Your task to perform on an android device: Add logitech g933 to the cart on walmart Image 0: 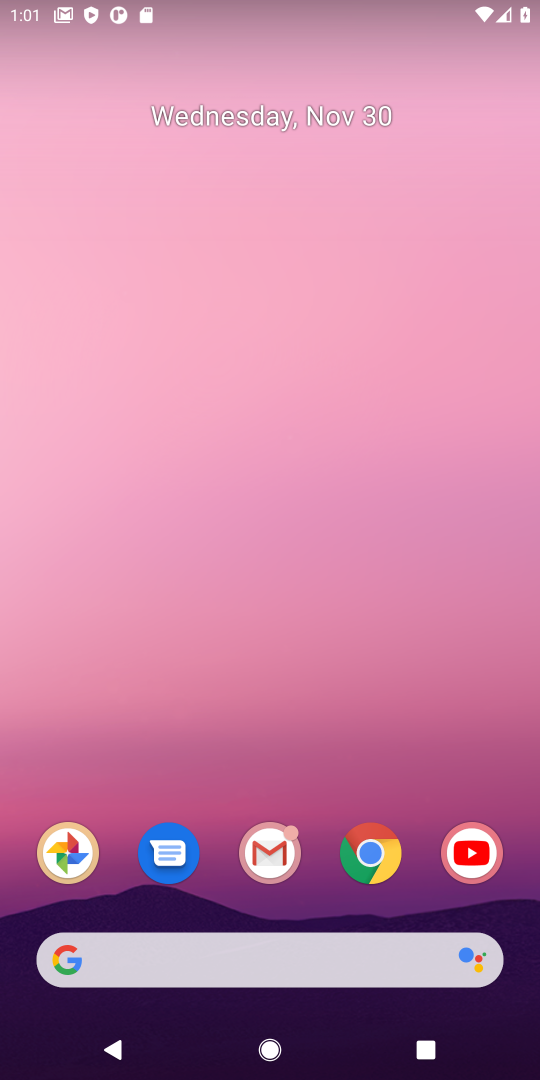
Step 0: click (390, 836)
Your task to perform on an android device: Add logitech g933 to the cart on walmart Image 1: 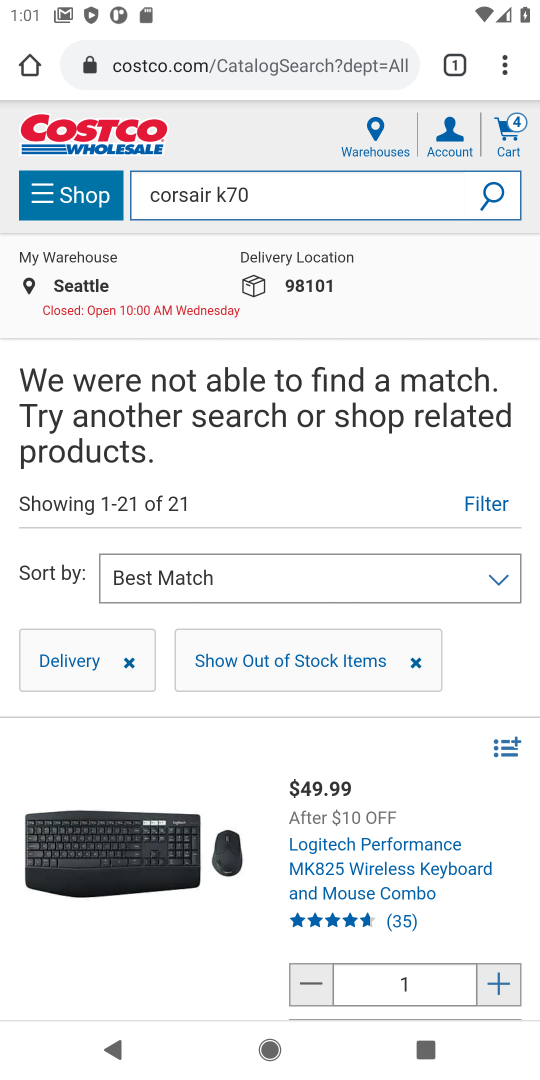
Step 1: click (216, 60)
Your task to perform on an android device: Add logitech g933 to the cart on walmart Image 2: 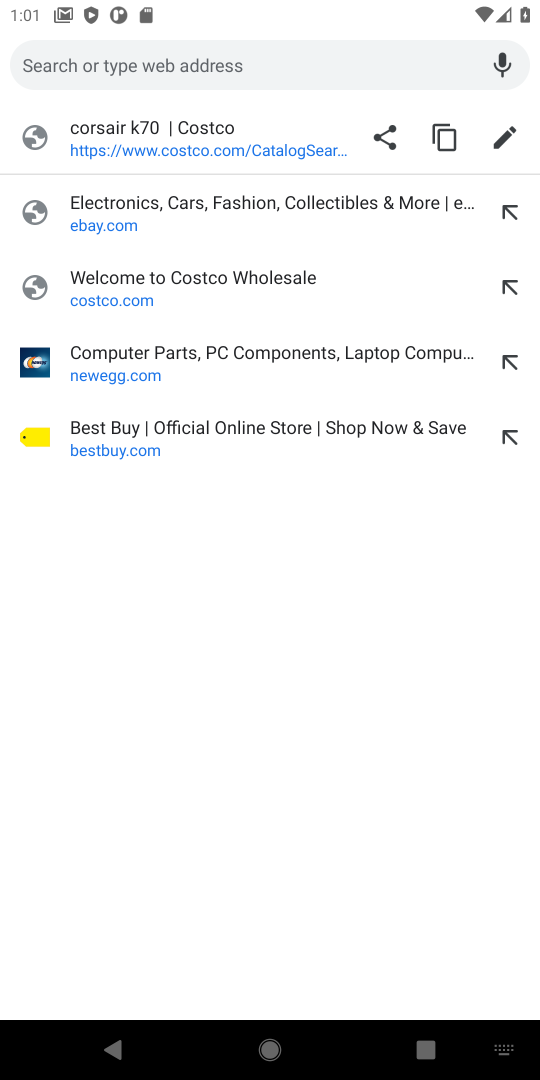
Step 2: type "walmart.com"
Your task to perform on an android device: Add logitech g933 to the cart on walmart Image 3: 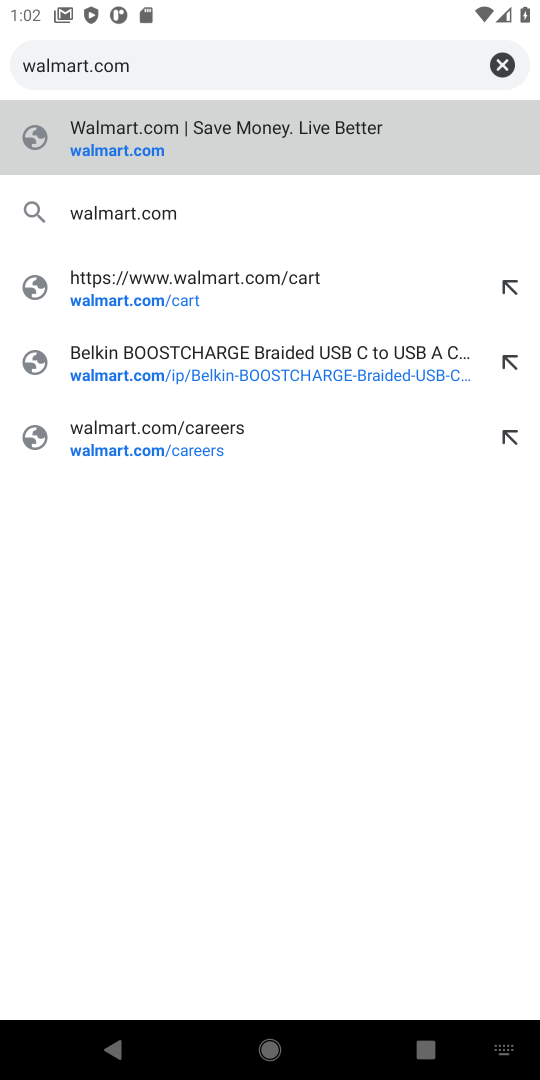
Step 3: click (115, 150)
Your task to perform on an android device: Add logitech g933 to the cart on walmart Image 4: 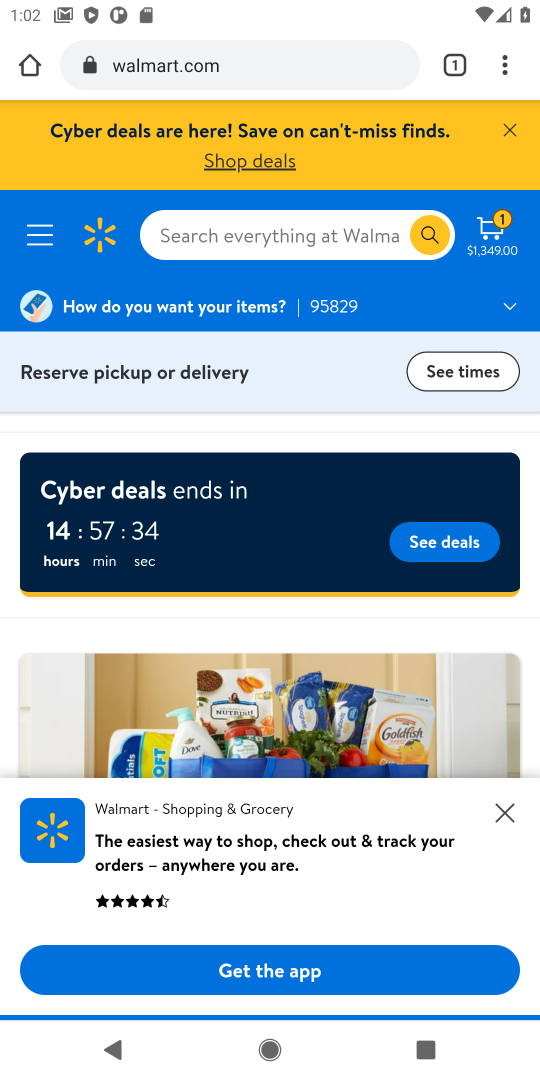
Step 4: click (193, 232)
Your task to perform on an android device: Add logitech g933 to the cart on walmart Image 5: 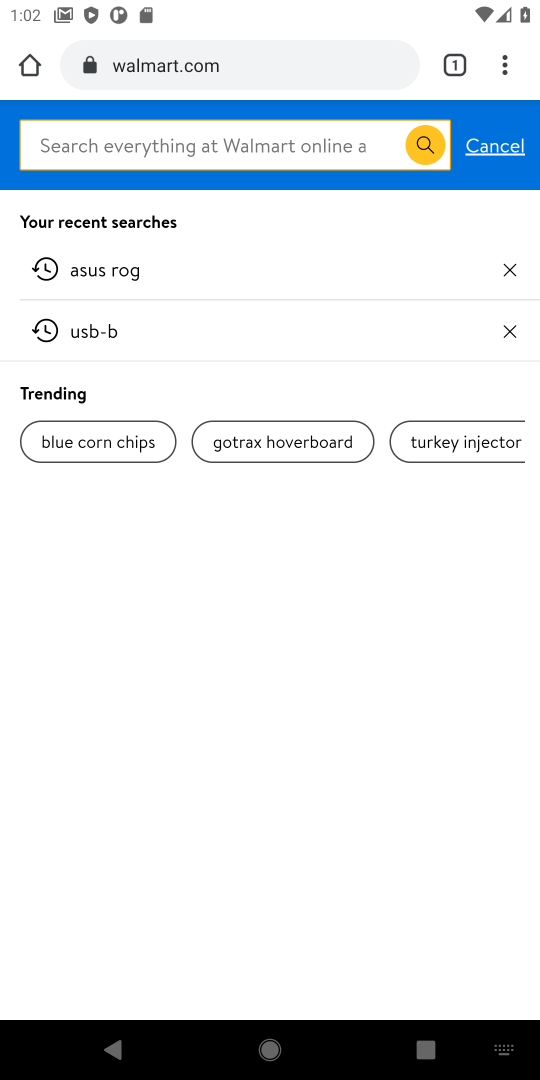
Step 5: type "logitech g933"
Your task to perform on an android device: Add logitech g933 to the cart on walmart Image 6: 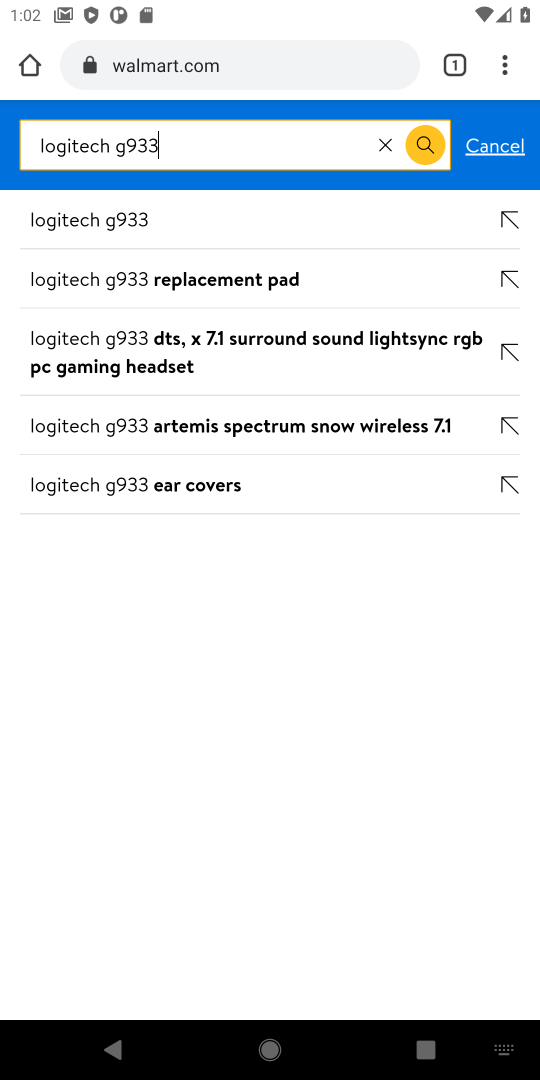
Step 6: click (429, 149)
Your task to perform on an android device: Add logitech g933 to the cart on walmart Image 7: 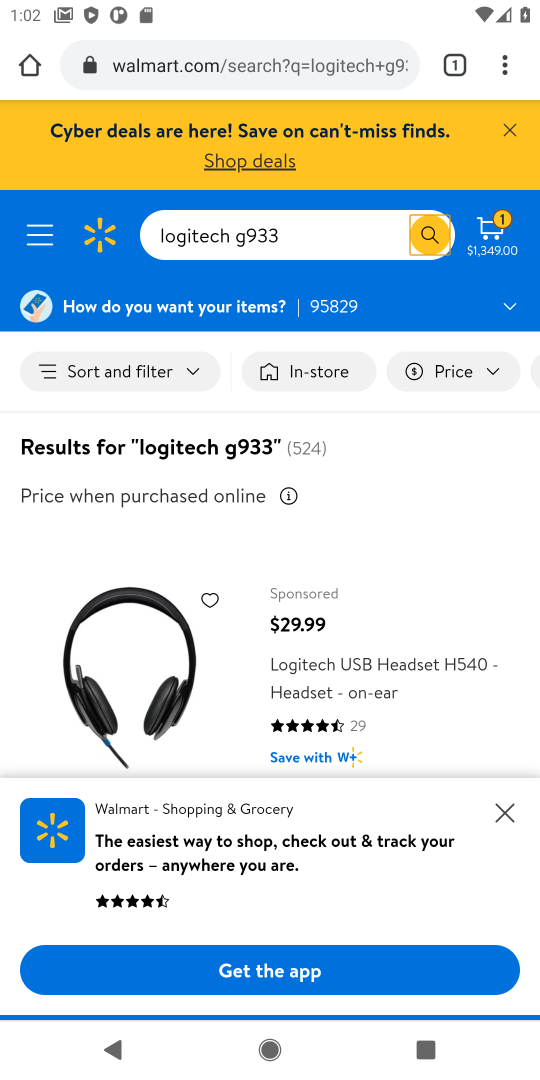
Step 7: drag from (399, 727) to (377, 430)
Your task to perform on an android device: Add logitech g933 to the cart on walmart Image 8: 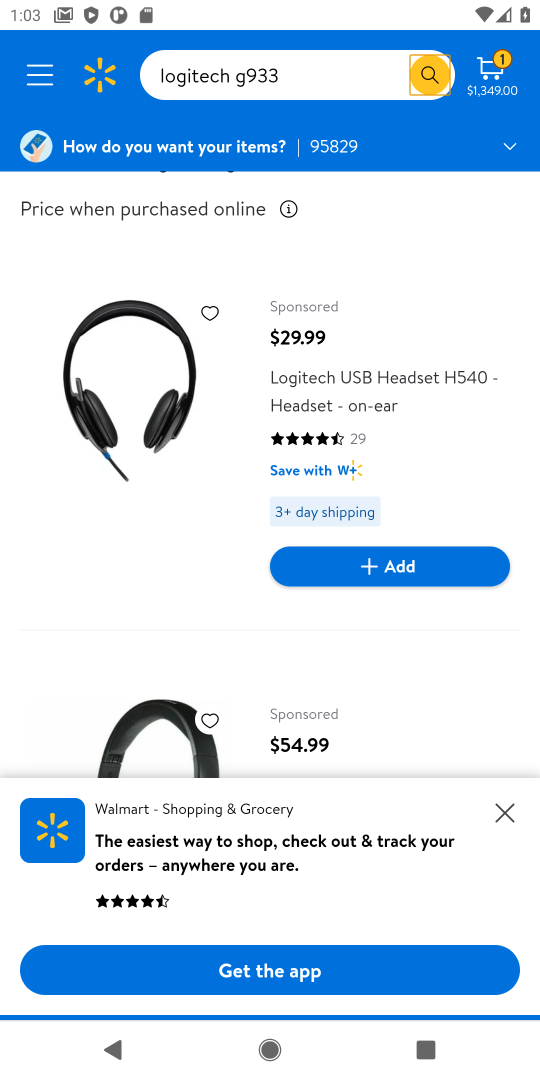
Step 8: drag from (446, 646) to (417, 441)
Your task to perform on an android device: Add logitech g933 to the cart on walmart Image 9: 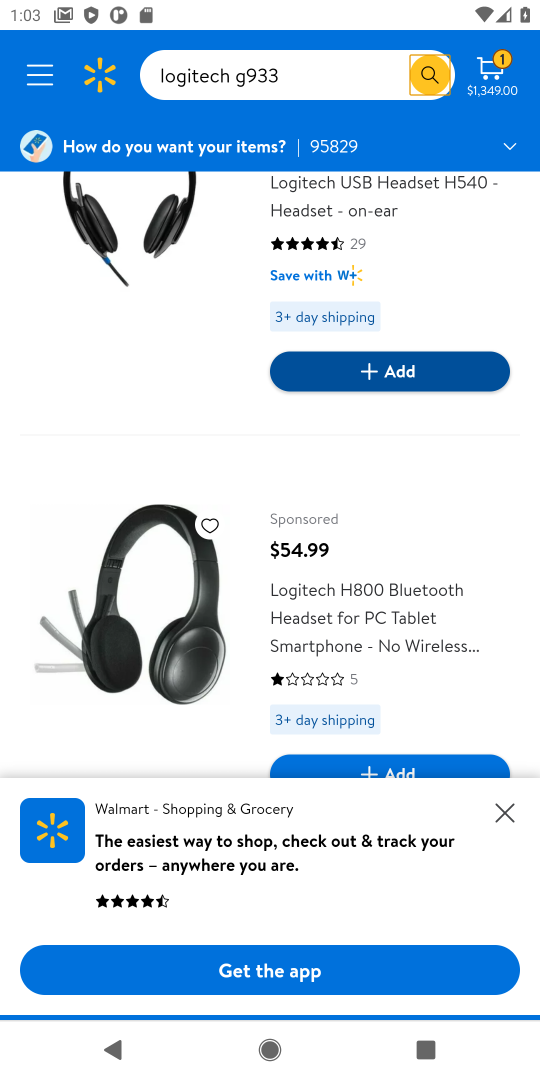
Step 9: drag from (403, 704) to (408, 489)
Your task to perform on an android device: Add logitech g933 to the cart on walmart Image 10: 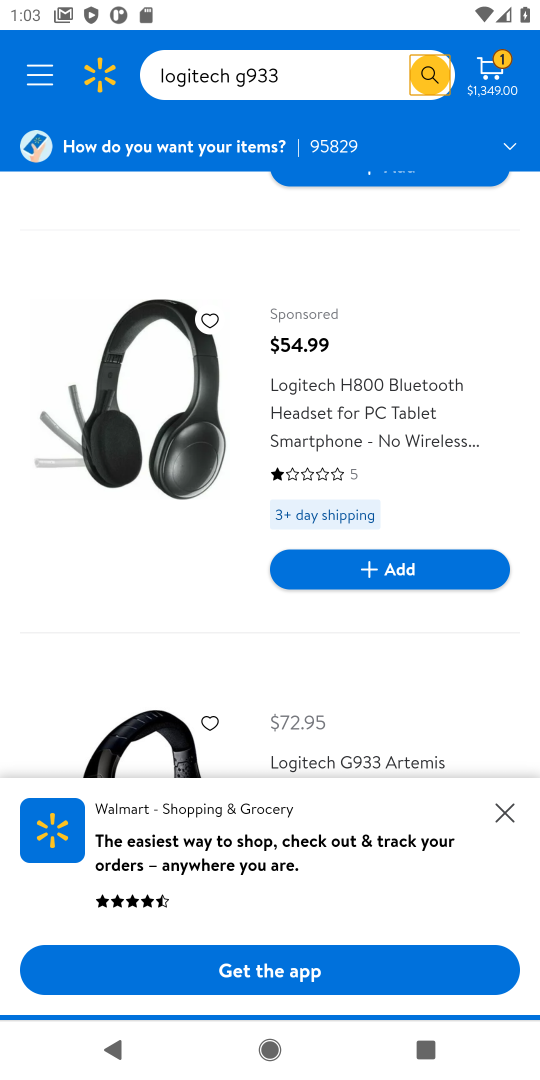
Step 10: drag from (408, 692) to (415, 445)
Your task to perform on an android device: Add logitech g933 to the cart on walmart Image 11: 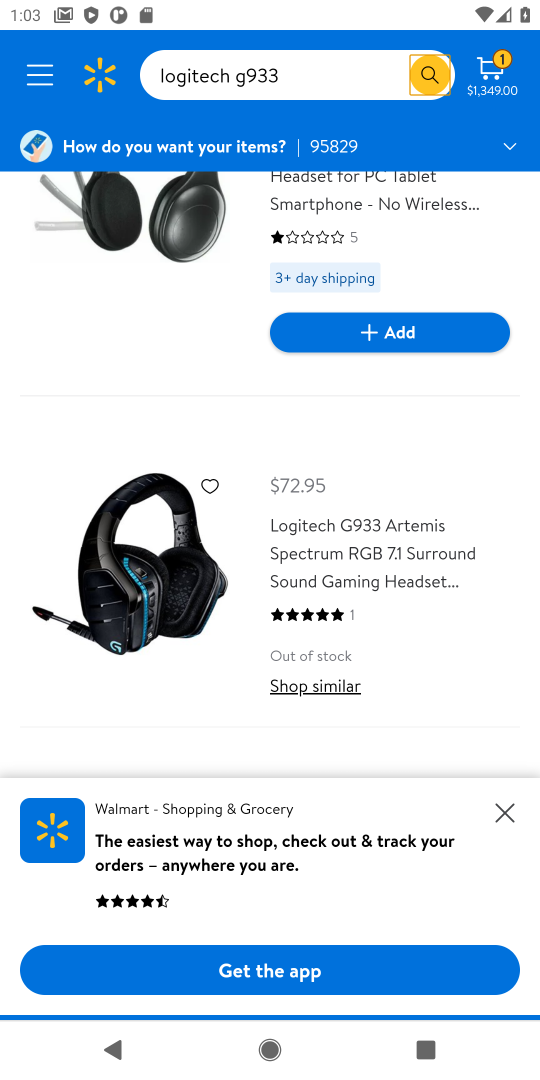
Step 11: drag from (384, 661) to (393, 372)
Your task to perform on an android device: Add logitech g933 to the cart on walmart Image 12: 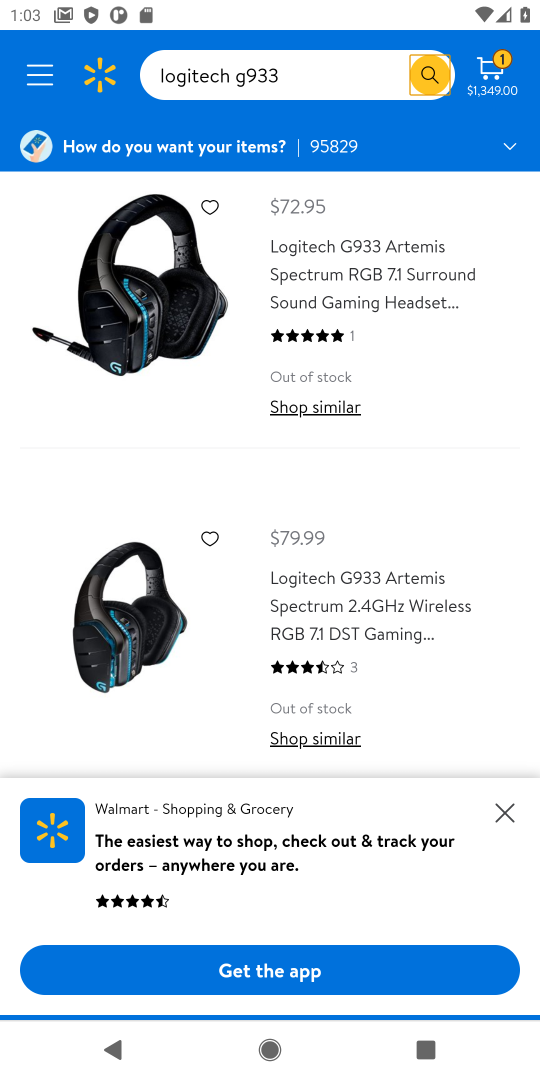
Step 12: drag from (403, 677) to (386, 326)
Your task to perform on an android device: Add logitech g933 to the cart on walmart Image 13: 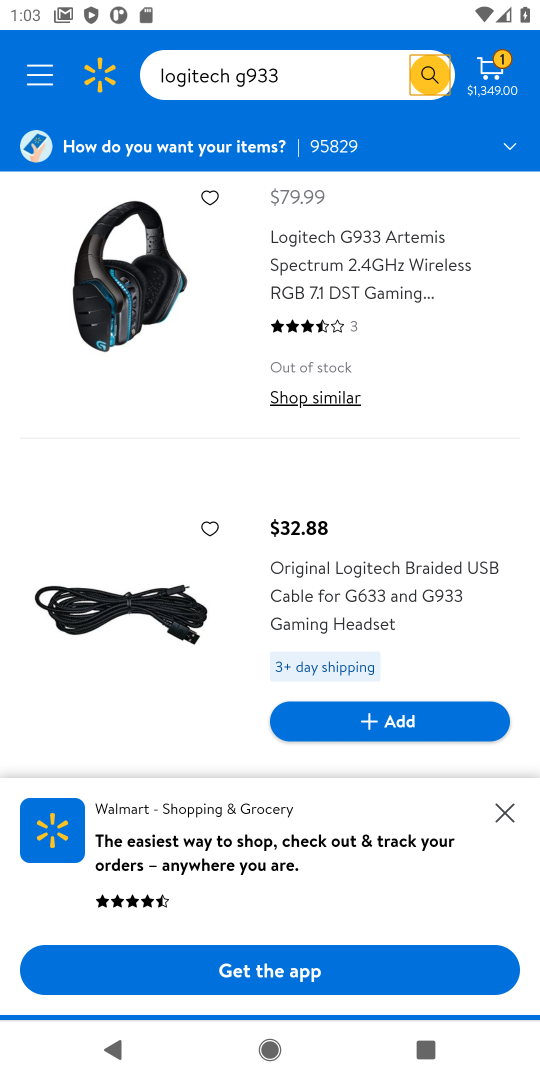
Step 13: drag from (406, 598) to (415, 397)
Your task to perform on an android device: Add logitech g933 to the cart on walmart Image 14: 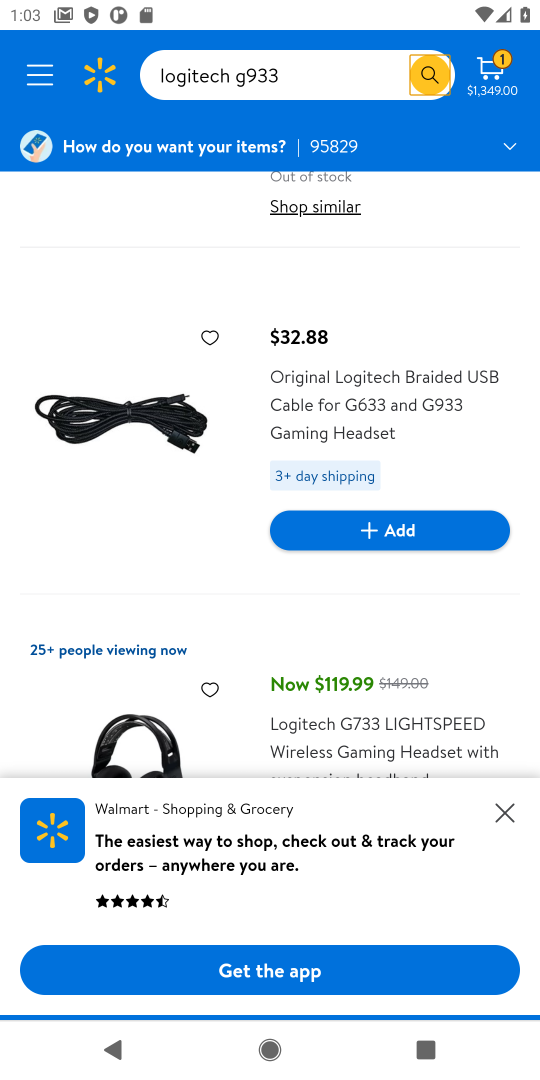
Step 14: click (383, 534)
Your task to perform on an android device: Add logitech g933 to the cart on walmart Image 15: 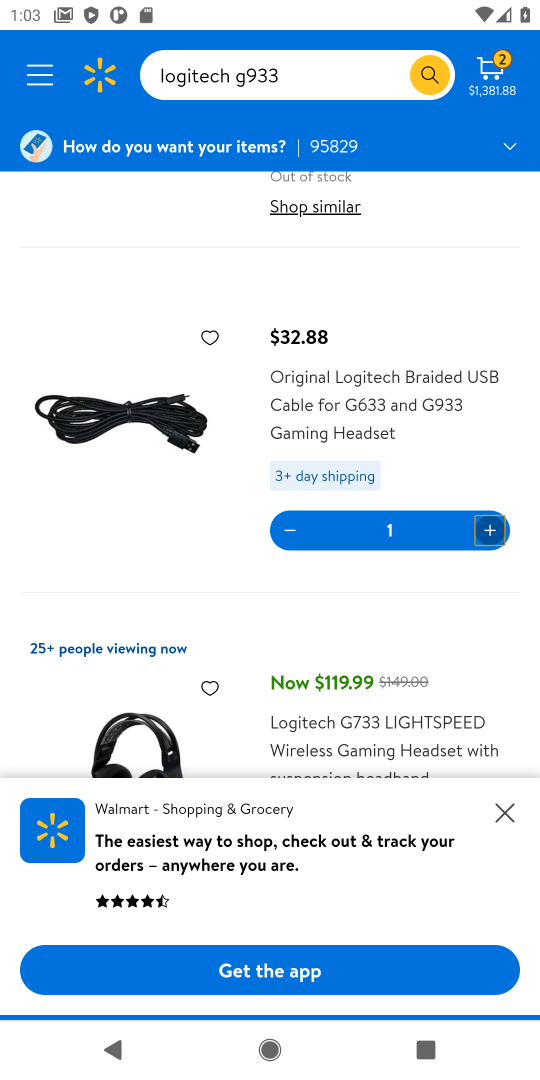
Step 15: task complete